Your task to perform on an android device: Search for Italian restaurants on Maps Image 0: 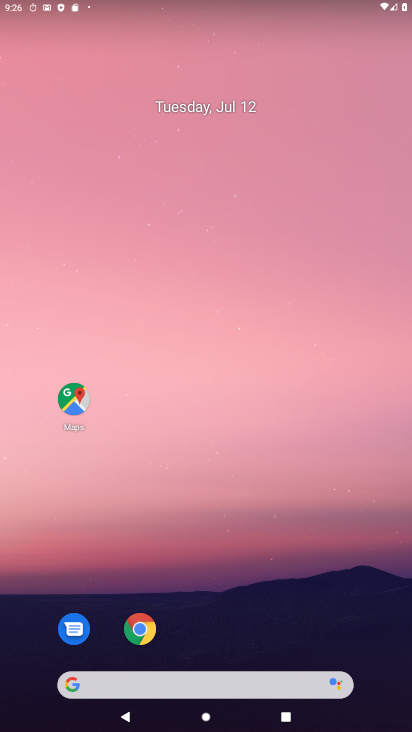
Step 0: drag from (309, 655) to (248, 296)
Your task to perform on an android device: Search for Italian restaurants on Maps Image 1: 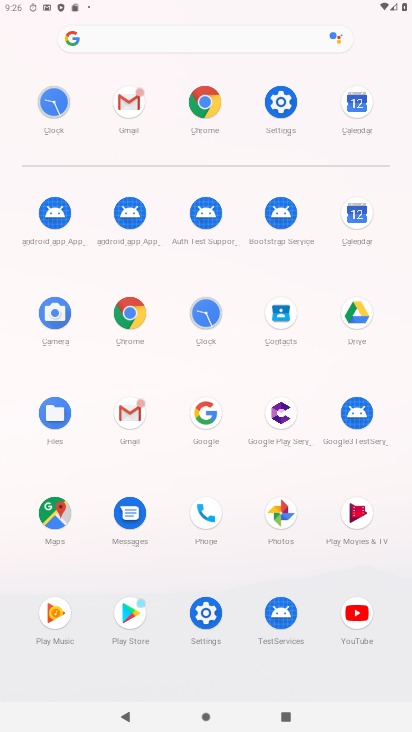
Step 1: click (62, 509)
Your task to perform on an android device: Search for Italian restaurants on Maps Image 2: 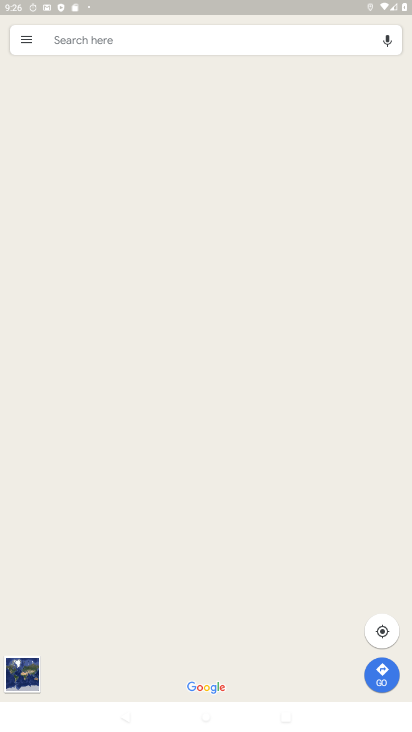
Step 2: press back button
Your task to perform on an android device: Search for Italian restaurants on Maps Image 3: 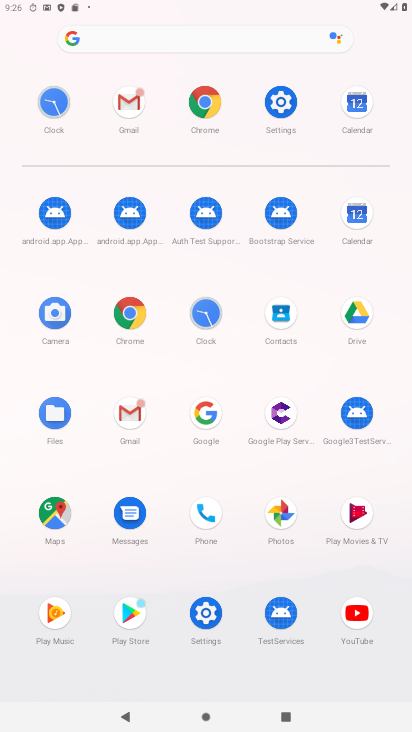
Step 3: click (51, 526)
Your task to perform on an android device: Search for Italian restaurants on Maps Image 4: 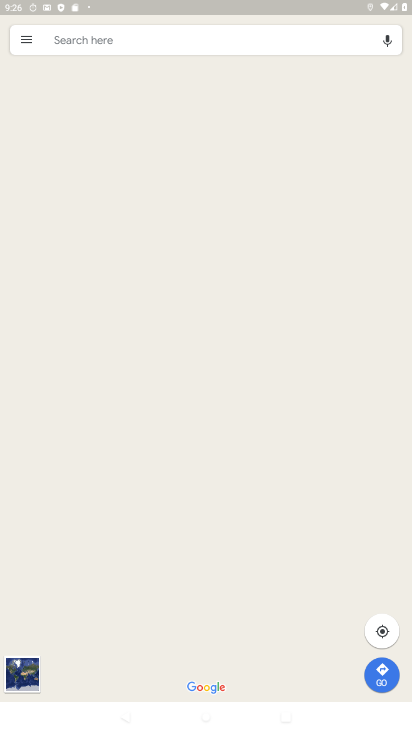
Step 4: click (67, 43)
Your task to perform on an android device: Search for Italian restaurants on Maps Image 5: 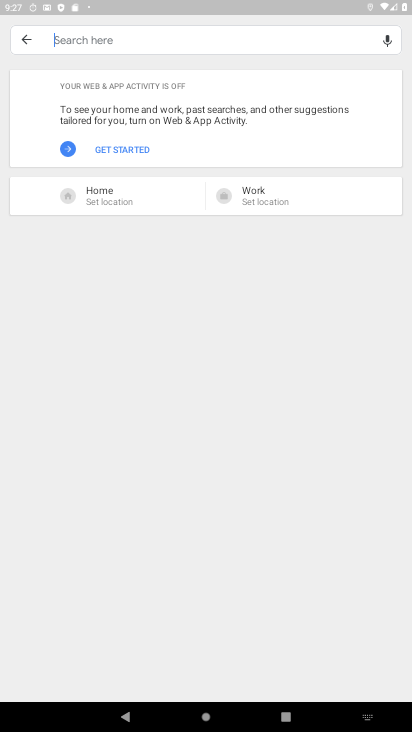
Step 5: type "italian restaurantrs"
Your task to perform on an android device: Search for Italian restaurants on Maps Image 6: 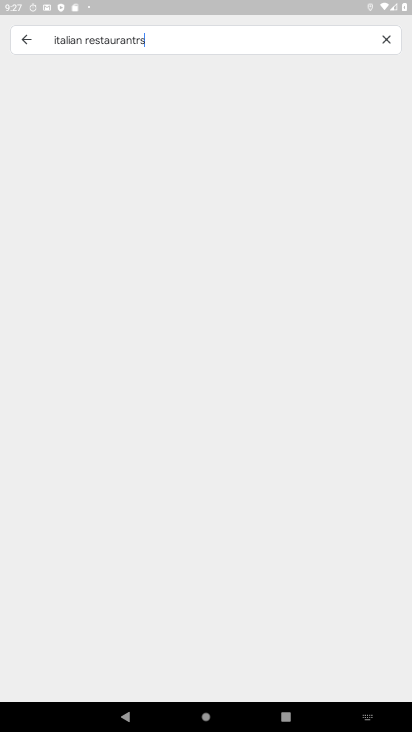
Step 6: click (244, 154)
Your task to perform on an android device: Search for Italian restaurants on Maps Image 7: 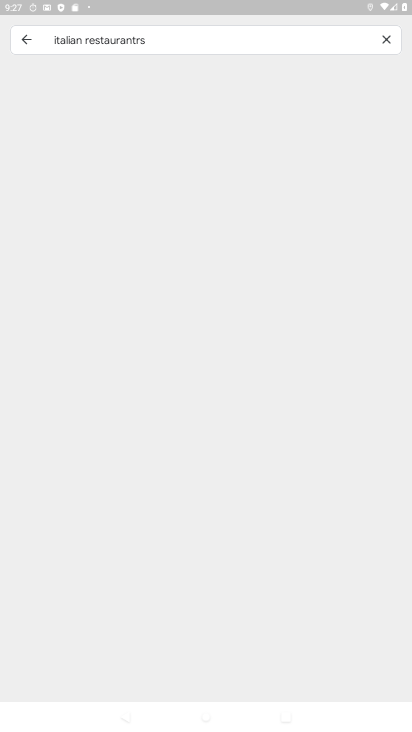
Step 7: click (232, 74)
Your task to perform on an android device: Search for Italian restaurants on Maps Image 8: 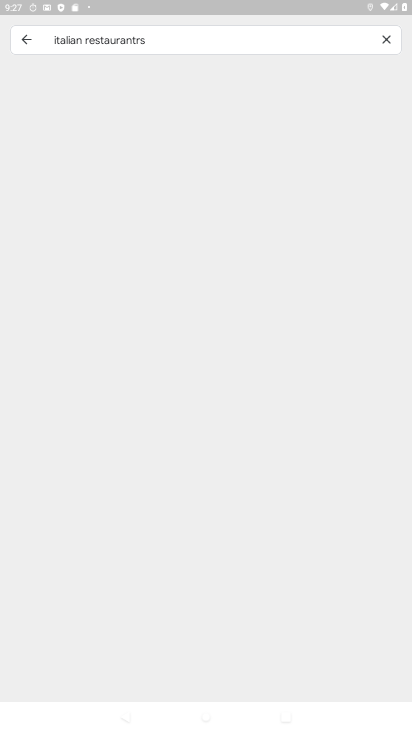
Step 8: click (232, 69)
Your task to perform on an android device: Search for Italian restaurants on Maps Image 9: 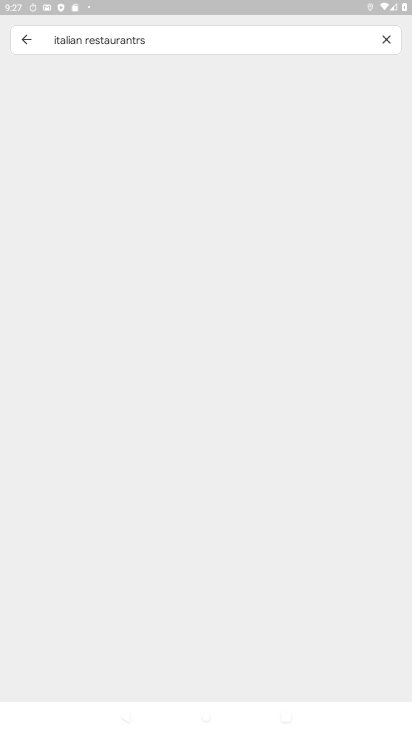
Step 9: click (200, 139)
Your task to perform on an android device: Search for Italian restaurants on Maps Image 10: 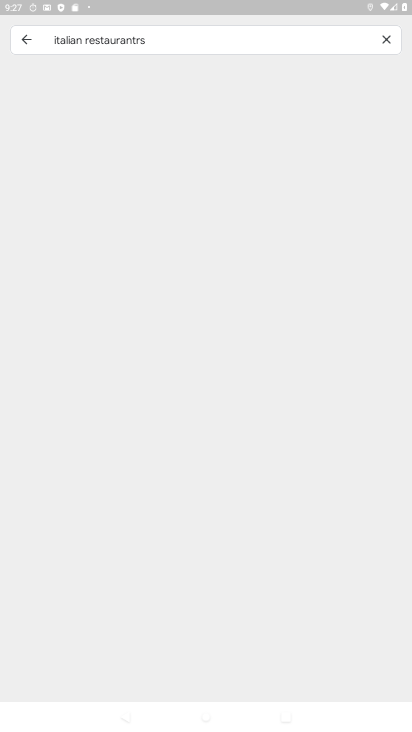
Step 10: click (200, 139)
Your task to perform on an android device: Search for Italian restaurants on Maps Image 11: 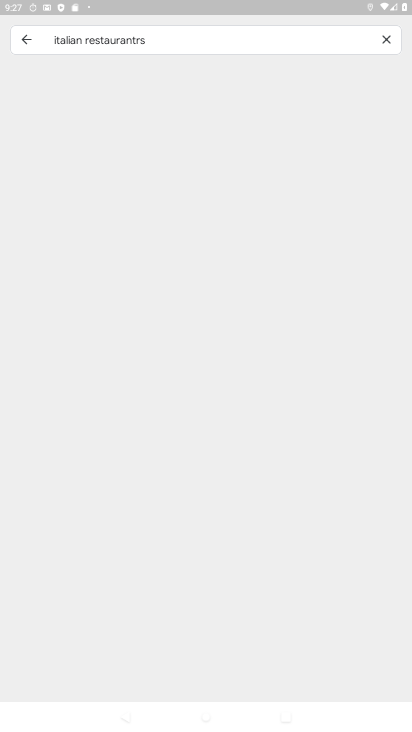
Step 11: click (200, 138)
Your task to perform on an android device: Search for Italian restaurants on Maps Image 12: 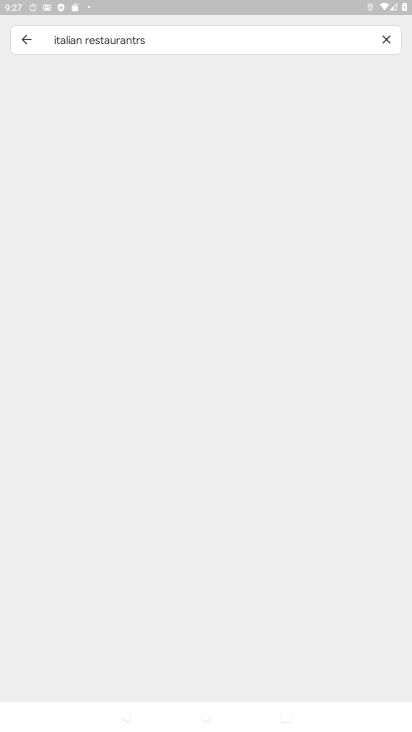
Step 12: click (195, 29)
Your task to perform on an android device: Search for Italian restaurants on Maps Image 13: 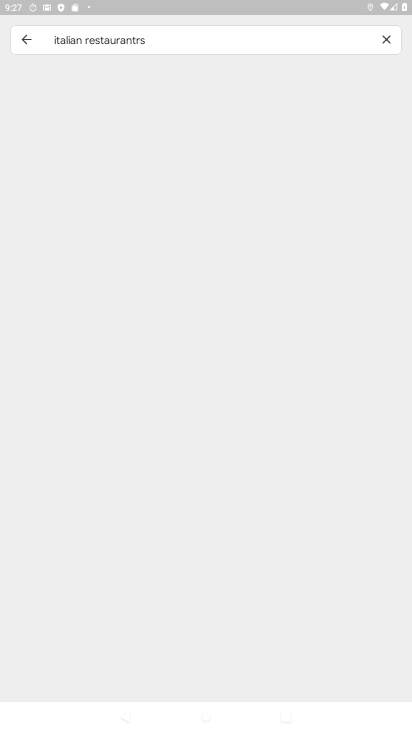
Step 13: click (196, 30)
Your task to perform on an android device: Search for Italian restaurants on Maps Image 14: 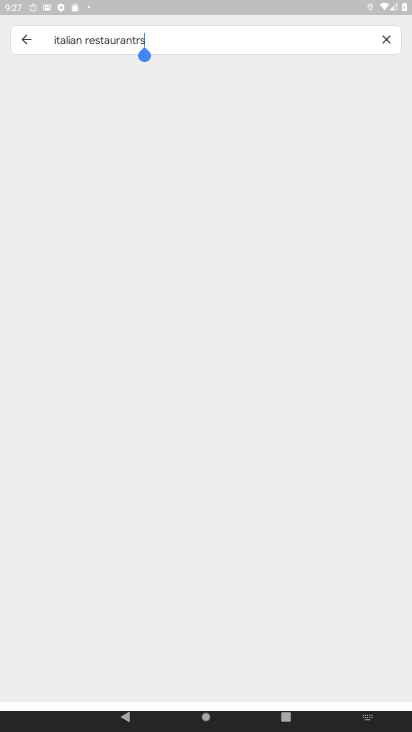
Step 14: click (199, 30)
Your task to perform on an android device: Search for Italian restaurants on Maps Image 15: 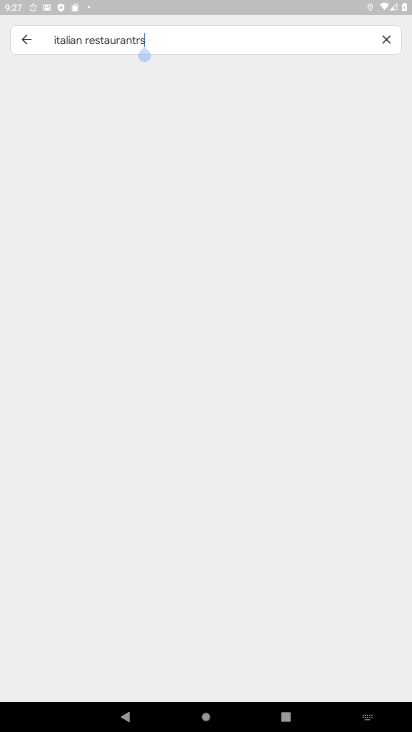
Step 15: click (202, 31)
Your task to perform on an android device: Search for Italian restaurants on Maps Image 16: 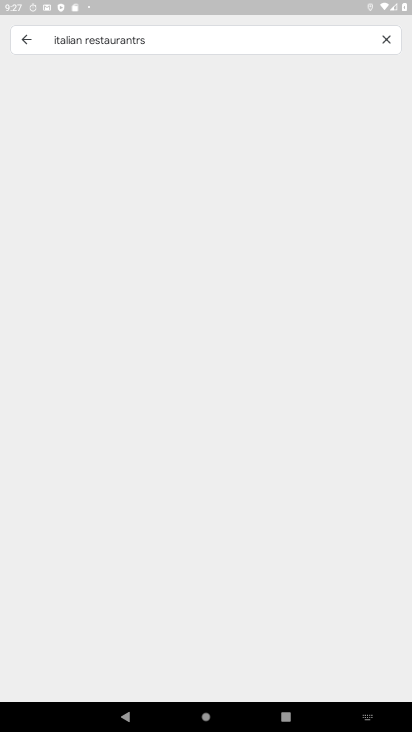
Step 16: click (204, 31)
Your task to perform on an android device: Search for Italian restaurants on Maps Image 17: 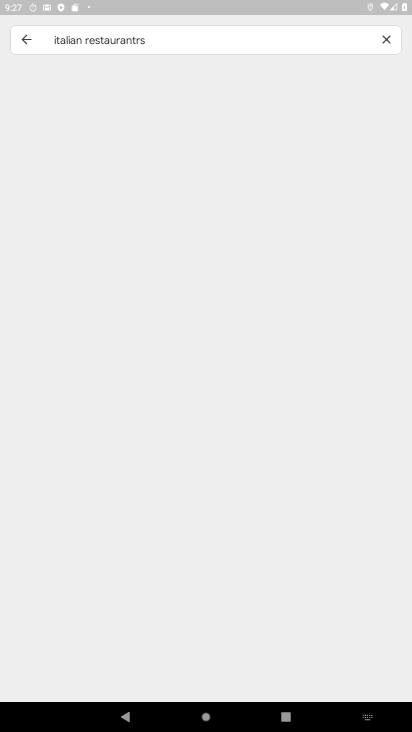
Step 17: click (208, 31)
Your task to perform on an android device: Search for Italian restaurants on Maps Image 18: 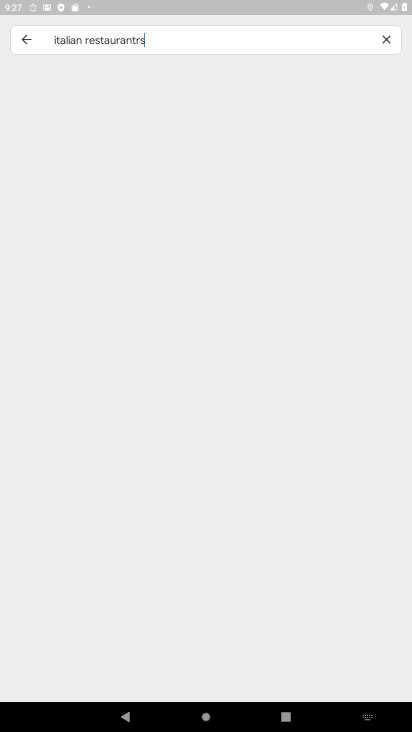
Step 18: click (214, 31)
Your task to perform on an android device: Search for Italian restaurants on Maps Image 19: 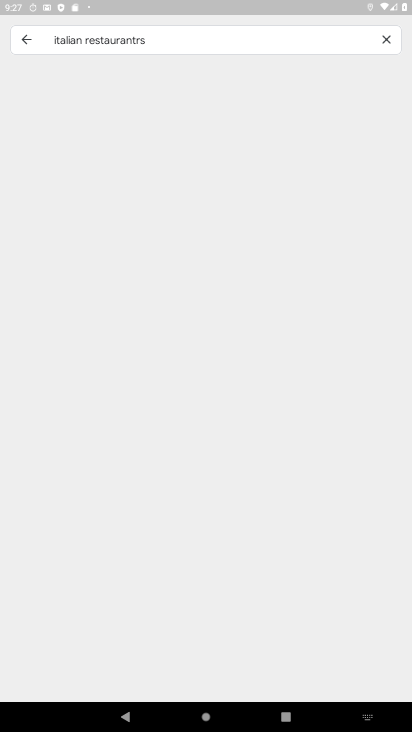
Step 19: task complete